Your task to perform on an android device: turn smart compose on in the gmail app Image 0: 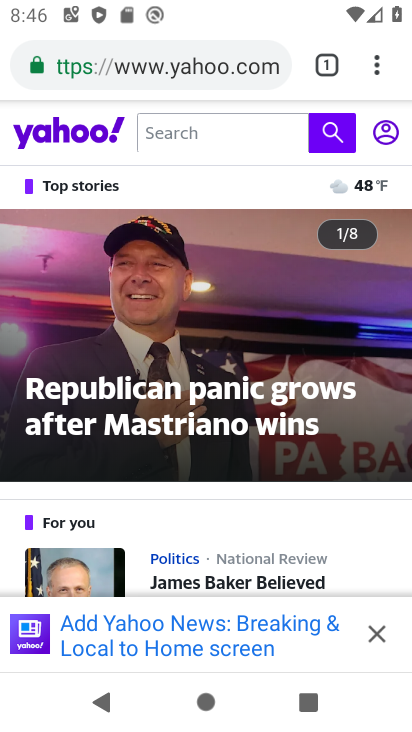
Step 0: press home button
Your task to perform on an android device: turn smart compose on in the gmail app Image 1: 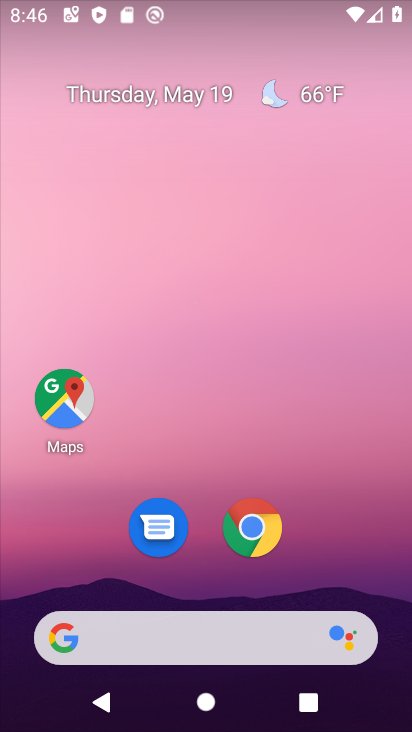
Step 1: drag from (305, 567) to (319, 66)
Your task to perform on an android device: turn smart compose on in the gmail app Image 2: 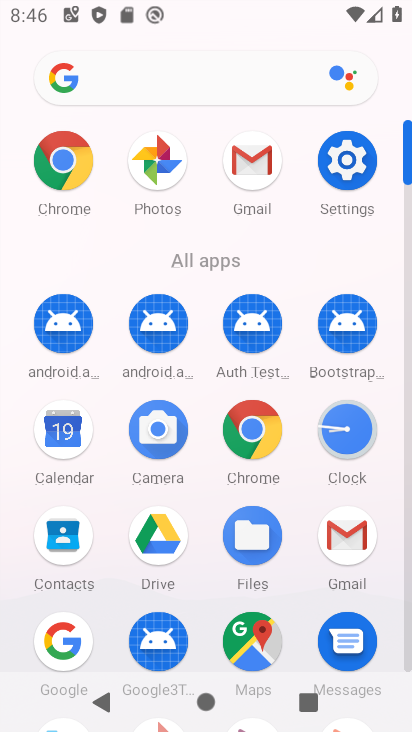
Step 2: click (354, 522)
Your task to perform on an android device: turn smart compose on in the gmail app Image 3: 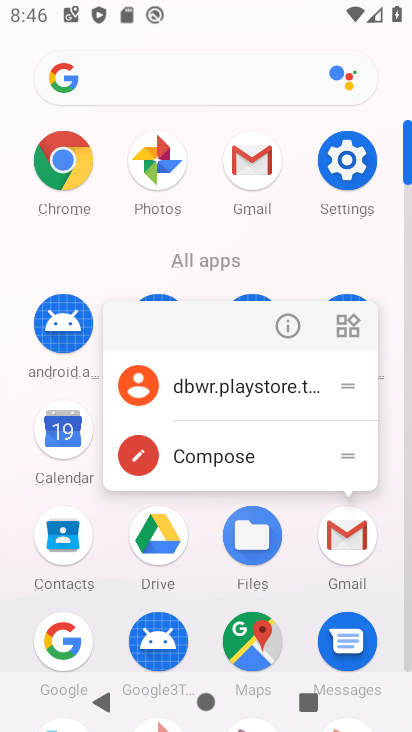
Step 3: click (335, 517)
Your task to perform on an android device: turn smart compose on in the gmail app Image 4: 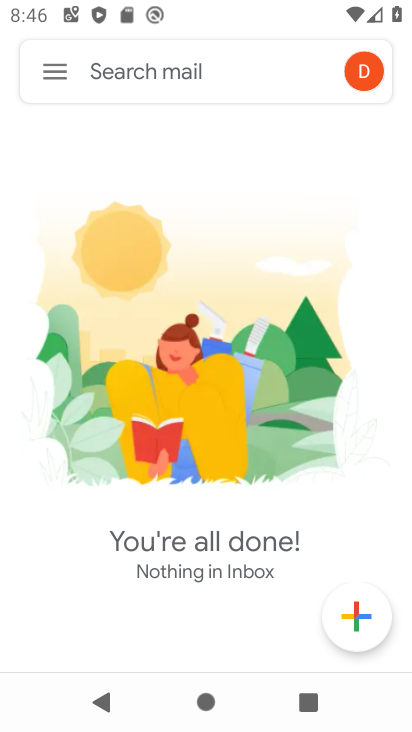
Step 4: click (56, 80)
Your task to perform on an android device: turn smart compose on in the gmail app Image 5: 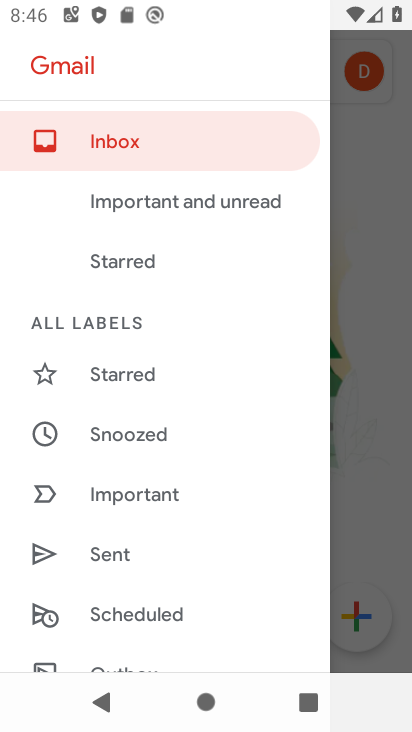
Step 5: drag from (154, 561) to (172, 136)
Your task to perform on an android device: turn smart compose on in the gmail app Image 6: 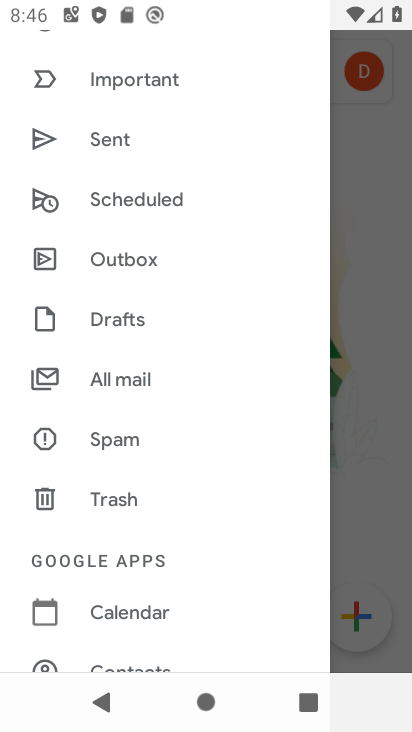
Step 6: drag from (107, 596) to (126, 170)
Your task to perform on an android device: turn smart compose on in the gmail app Image 7: 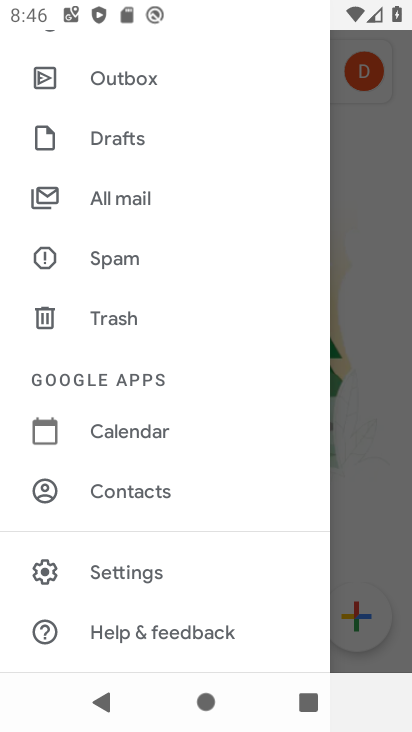
Step 7: click (141, 569)
Your task to perform on an android device: turn smart compose on in the gmail app Image 8: 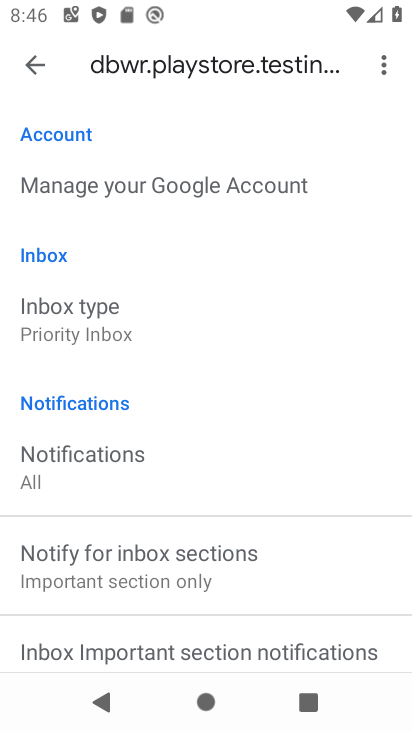
Step 8: task complete